Your task to perform on an android device: turn on bluetooth scan Image 0: 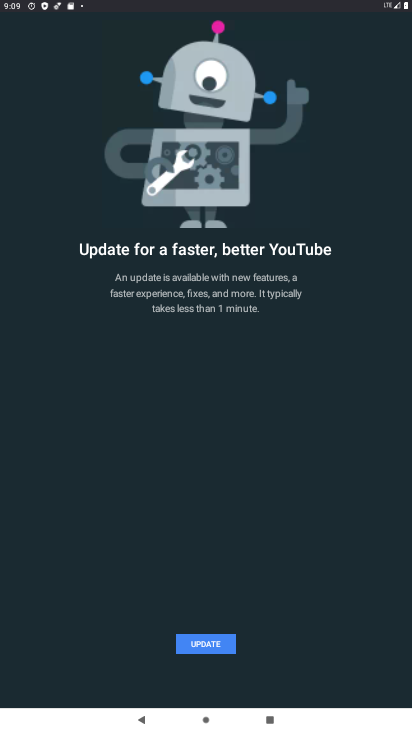
Step 0: press home button
Your task to perform on an android device: turn on bluetooth scan Image 1: 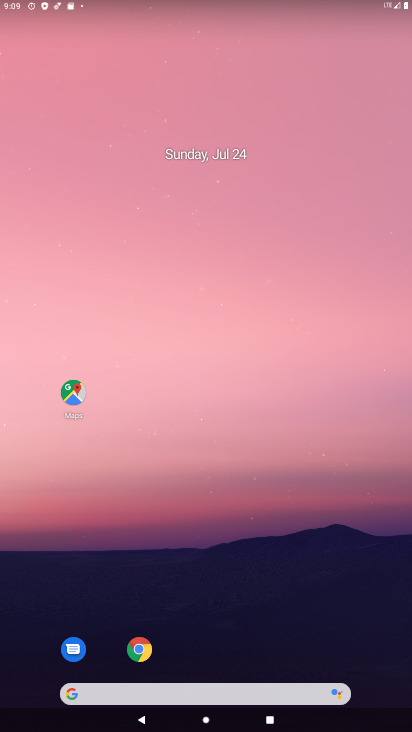
Step 1: click (383, 217)
Your task to perform on an android device: turn on bluetooth scan Image 2: 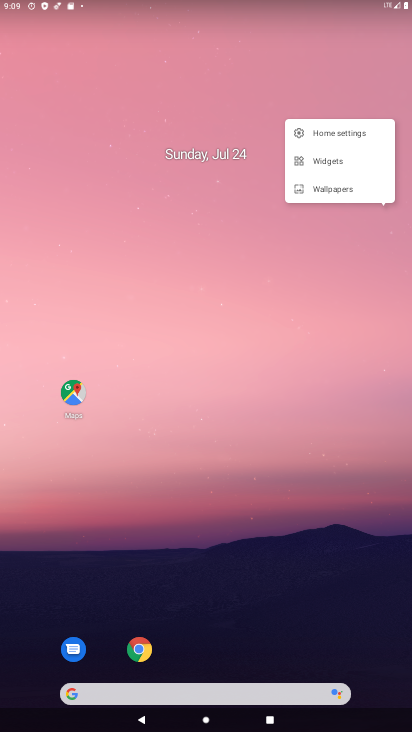
Step 2: drag from (16, 693) to (243, 41)
Your task to perform on an android device: turn on bluetooth scan Image 3: 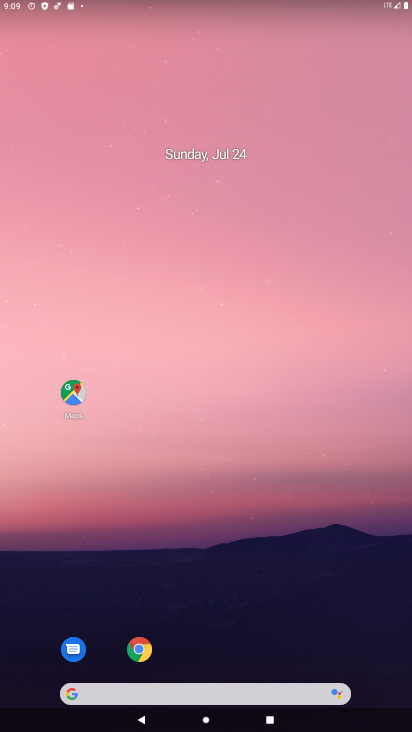
Step 3: drag from (72, 696) to (140, 63)
Your task to perform on an android device: turn on bluetooth scan Image 4: 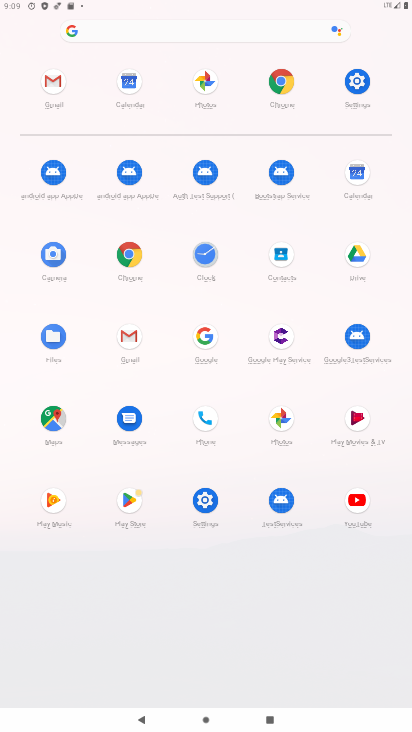
Step 4: click (208, 496)
Your task to perform on an android device: turn on bluetooth scan Image 5: 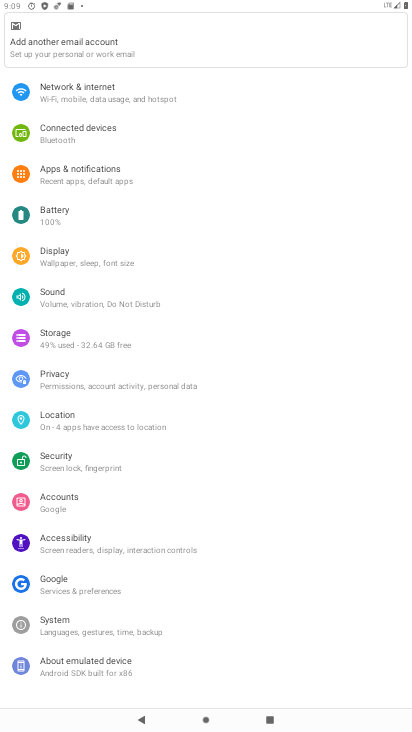
Step 5: click (76, 136)
Your task to perform on an android device: turn on bluetooth scan Image 6: 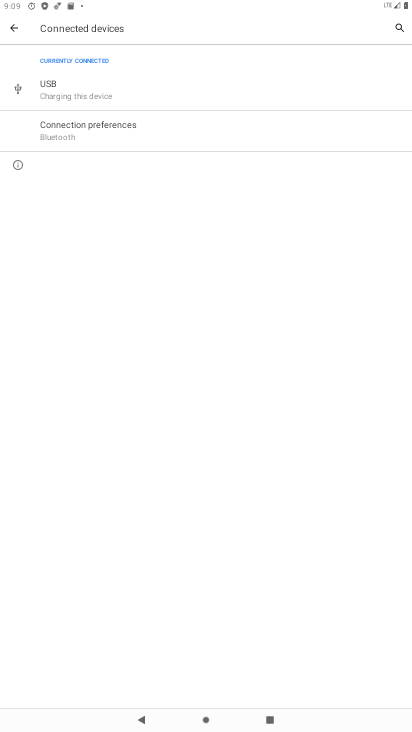
Step 6: click (106, 133)
Your task to perform on an android device: turn on bluetooth scan Image 7: 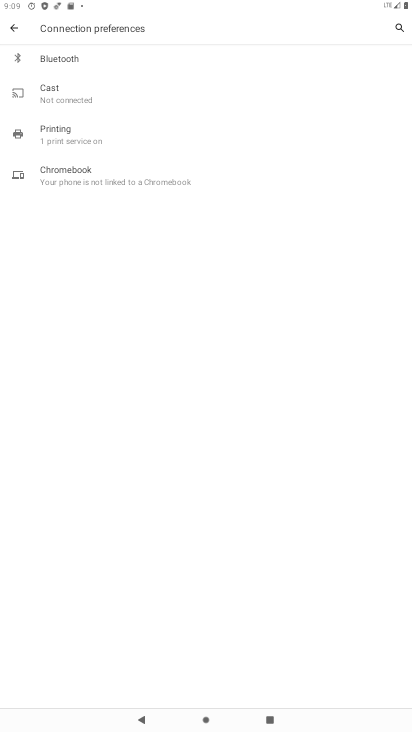
Step 7: click (71, 58)
Your task to perform on an android device: turn on bluetooth scan Image 8: 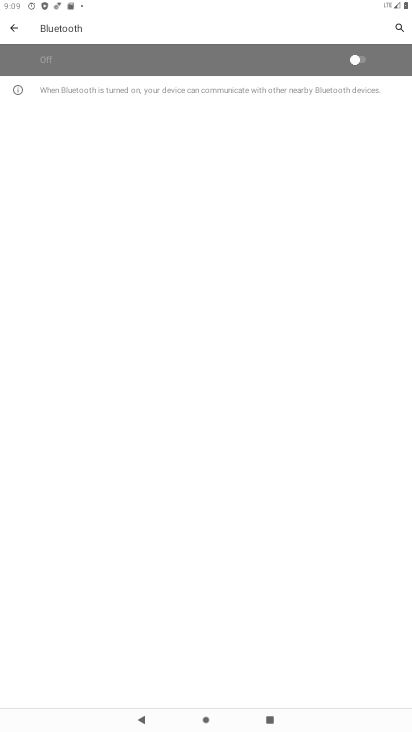
Step 8: click (351, 49)
Your task to perform on an android device: turn on bluetooth scan Image 9: 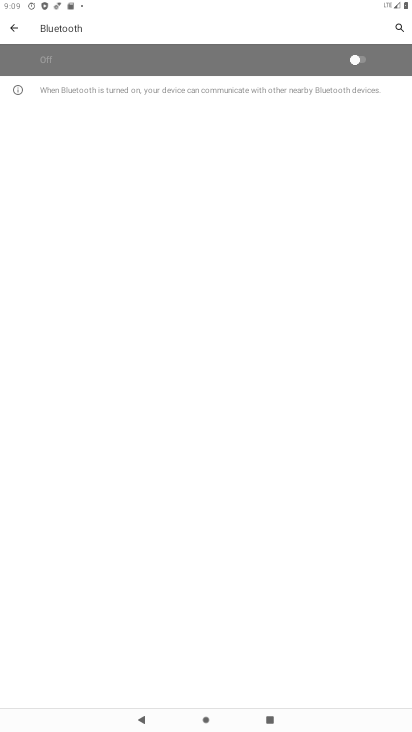
Step 9: task complete